Your task to perform on an android device: Check the news Image 0: 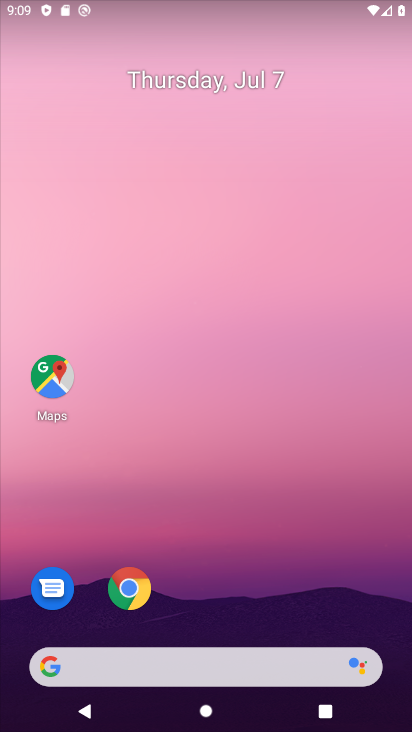
Step 0: drag from (287, 676) to (145, 191)
Your task to perform on an android device: Check the news Image 1: 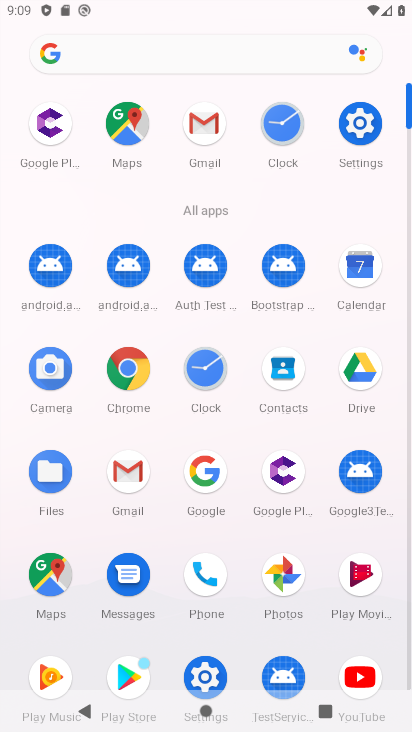
Step 1: click (124, 377)
Your task to perform on an android device: Check the news Image 2: 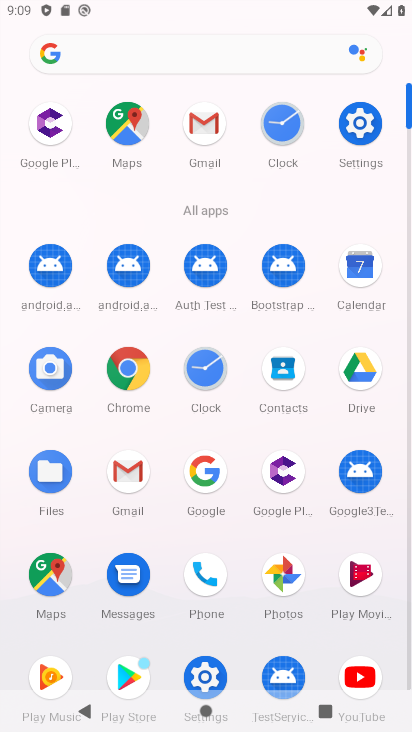
Step 2: click (126, 377)
Your task to perform on an android device: Check the news Image 3: 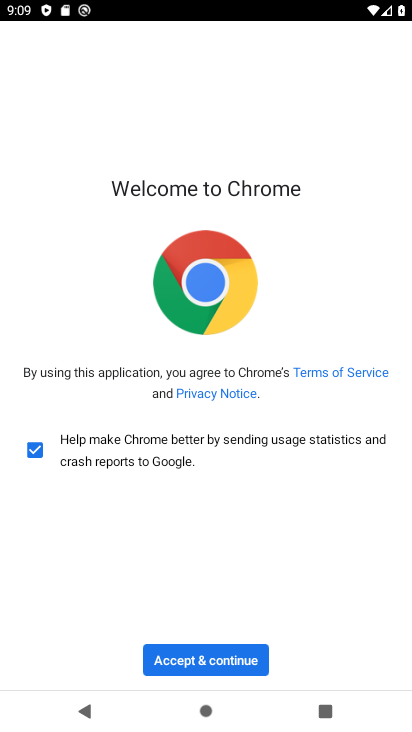
Step 3: click (193, 675)
Your task to perform on an android device: Check the news Image 4: 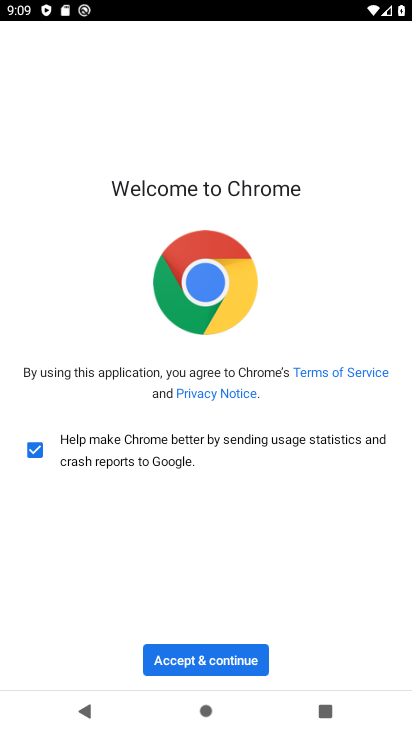
Step 4: click (193, 675)
Your task to perform on an android device: Check the news Image 5: 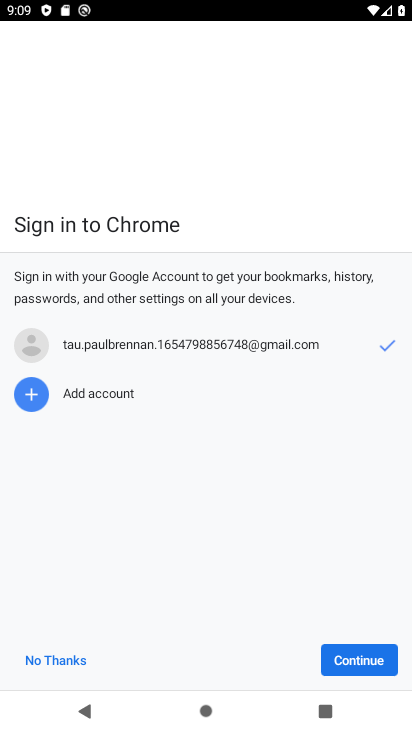
Step 5: click (345, 654)
Your task to perform on an android device: Check the news Image 6: 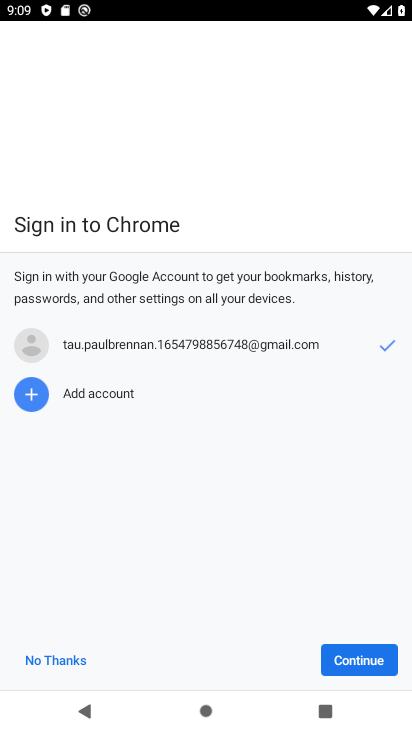
Step 6: click (346, 653)
Your task to perform on an android device: Check the news Image 7: 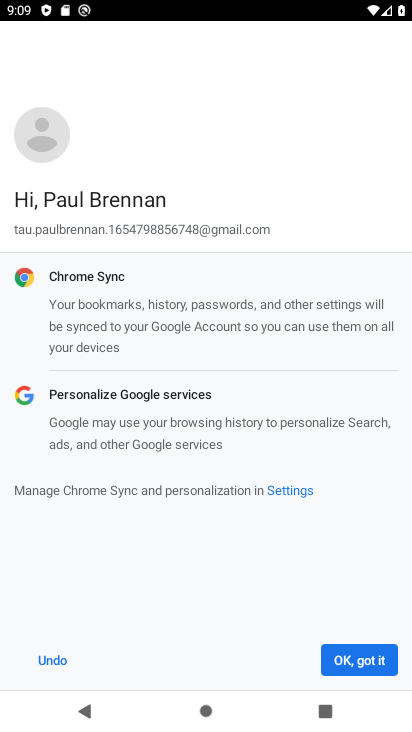
Step 7: click (361, 667)
Your task to perform on an android device: Check the news Image 8: 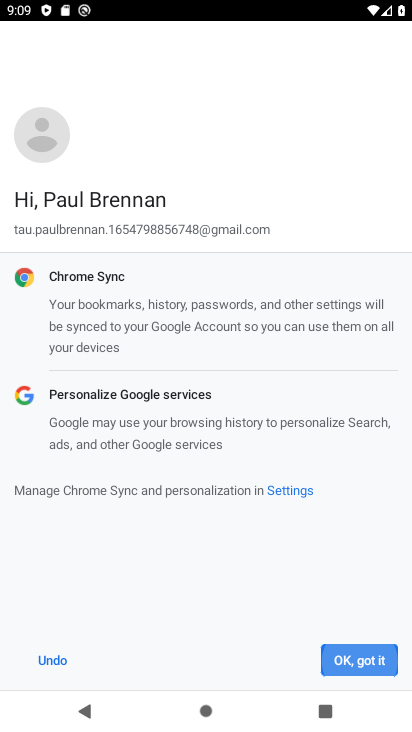
Step 8: click (358, 663)
Your task to perform on an android device: Check the news Image 9: 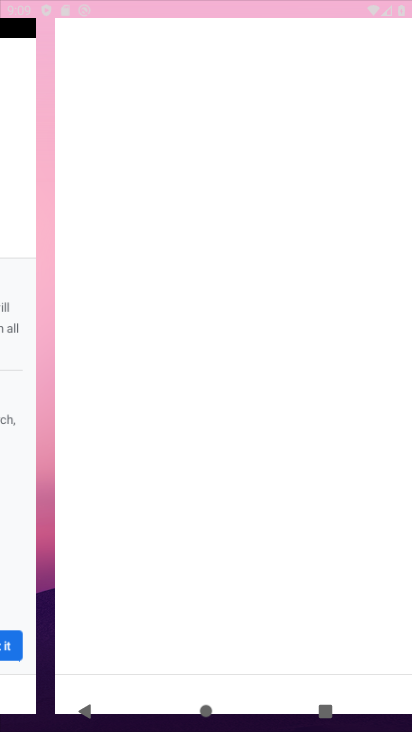
Step 9: click (357, 659)
Your task to perform on an android device: Check the news Image 10: 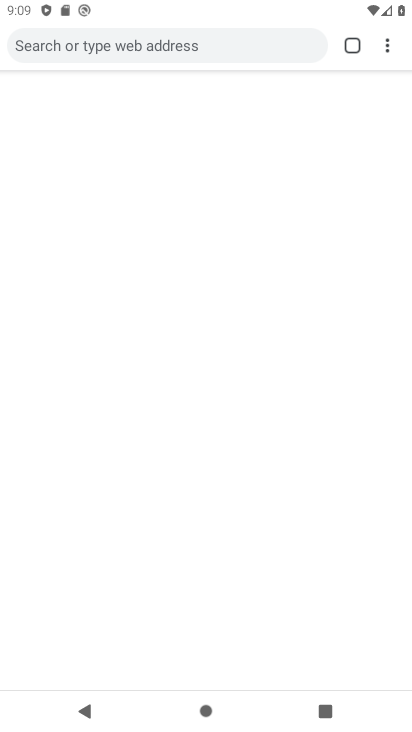
Step 10: click (351, 655)
Your task to perform on an android device: Check the news Image 11: 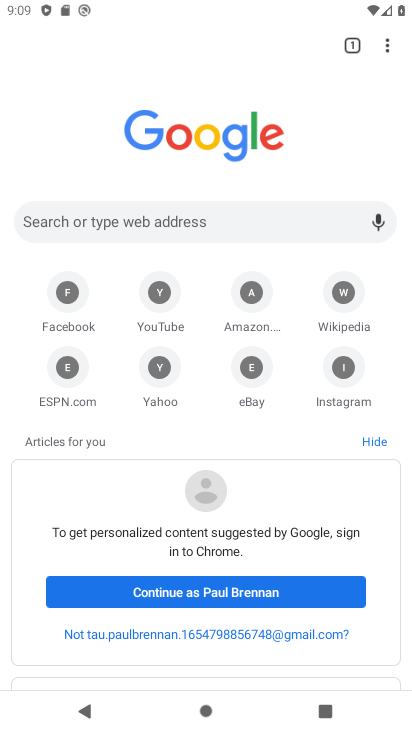
Step 11: click (79, 60)
Your task to perform on an android device: Check the news Image 12: 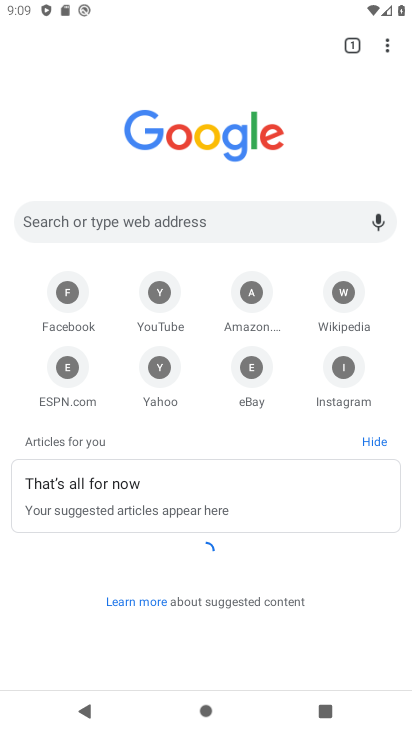
Step 12: click (67, 215)
Your task to perform on an android device: Check the news Image 13: 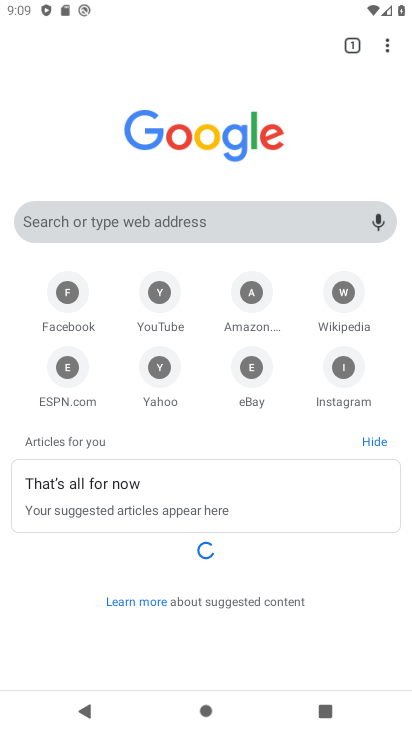
Step 13: click (64, 221)
Your task to perform on an android device: Check the news Image 14: 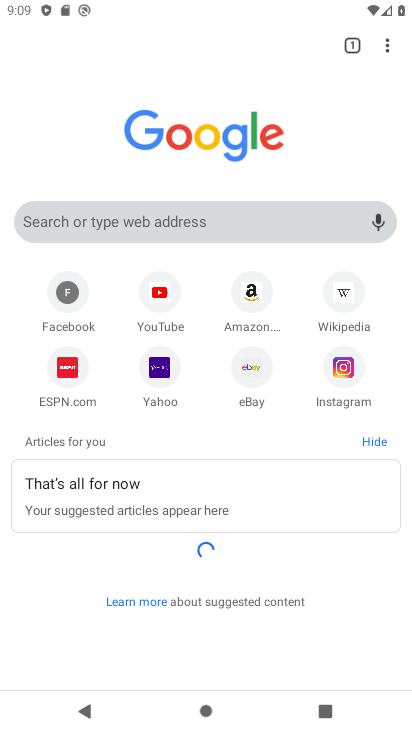
Step 14: click (66, 219)
Your task to perform on an android device: Check the news Image 15: 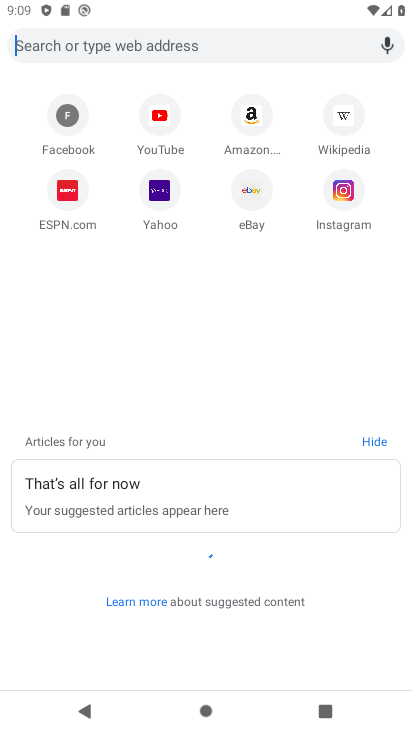
Step 15: click (67, 219)
Your task to perform on an android device: Check the news Image 16: 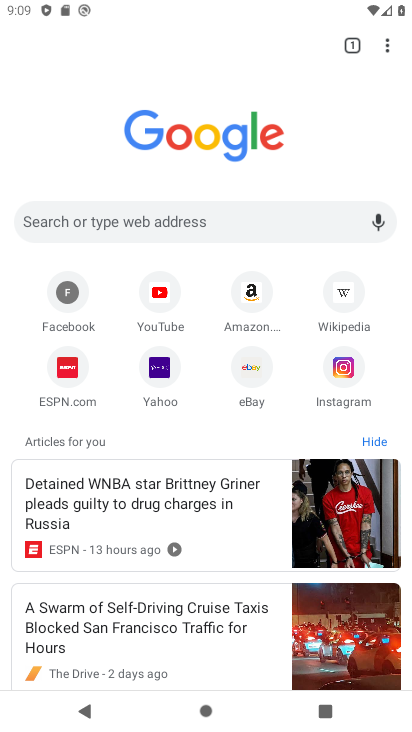
Step 16: task complete